Your task to perform on an android device: change notification settings in the gmail app Image 0: 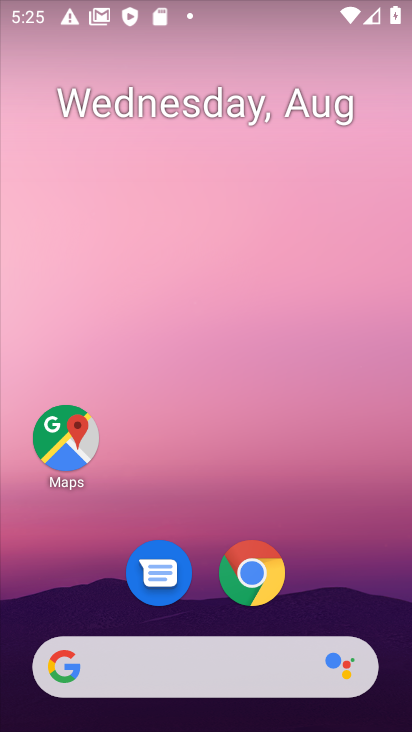
Step 0: drag from (309, 432) to (331, 1)
Your task to perform on an android device: change notification settings in the gmail app Image 1: 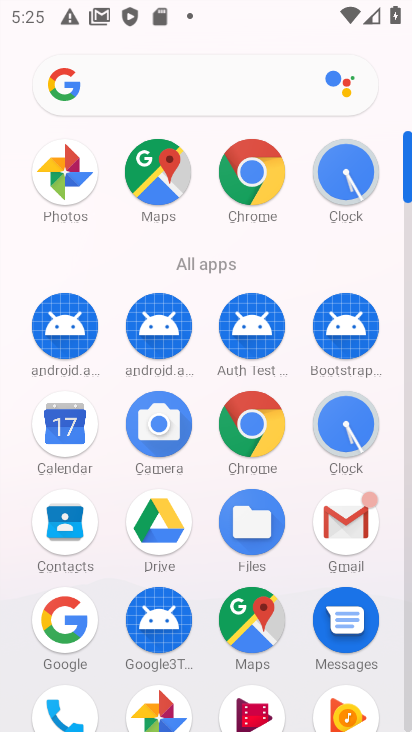
Step 1: click (365, 506)
Your task to perform on an android device: change notification settings in the gmail app Image 2: 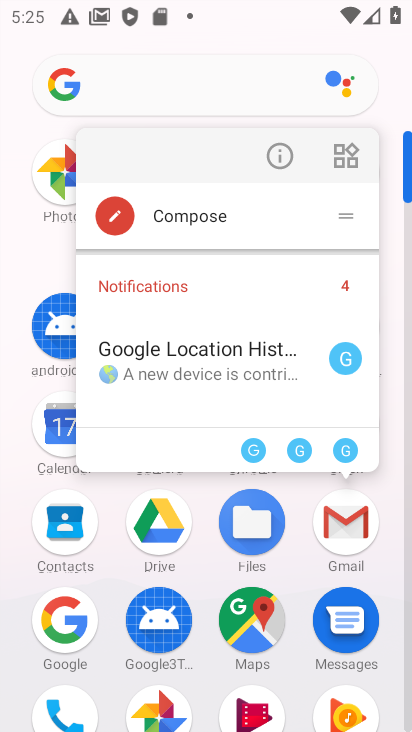
Step 2: click (355, 507)
Your task to perform on an android device: change notification settings in the gmail app Image 3: 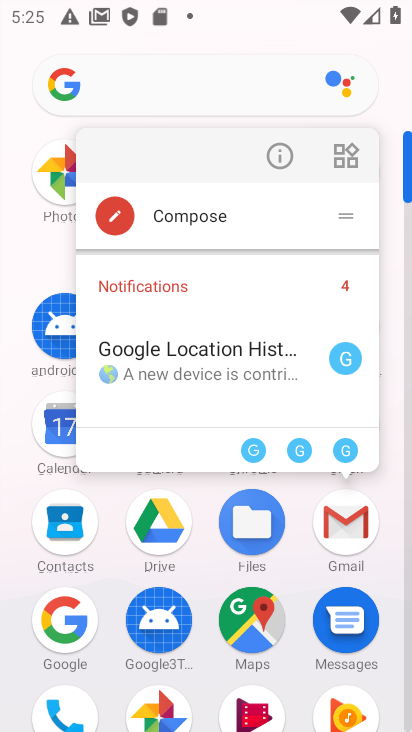
Step 3: click (356, 524)
Your task to perform on an android device: change notification settings in the gmail app Image 4: 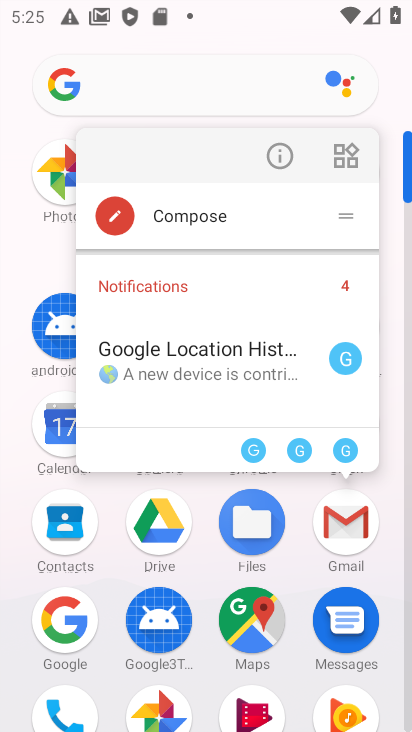
Step 4: click (355, 524)
Your task to perform on an android device: change notification settings in the gmail app Image 5: 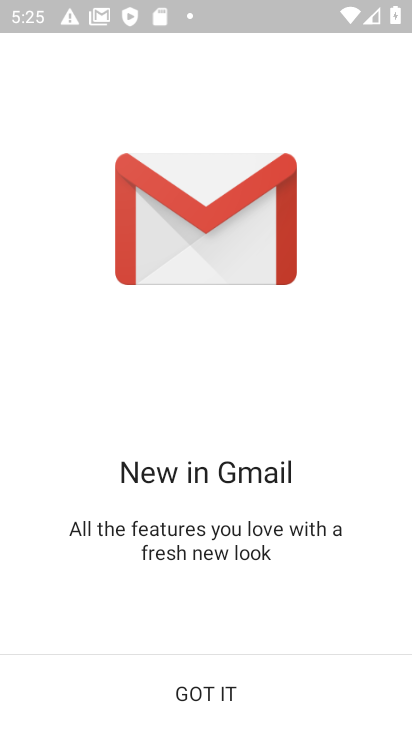
Step 5: click (178, 710)
Your task to perform on an android device: change notification settings in the gmail app Image 6: 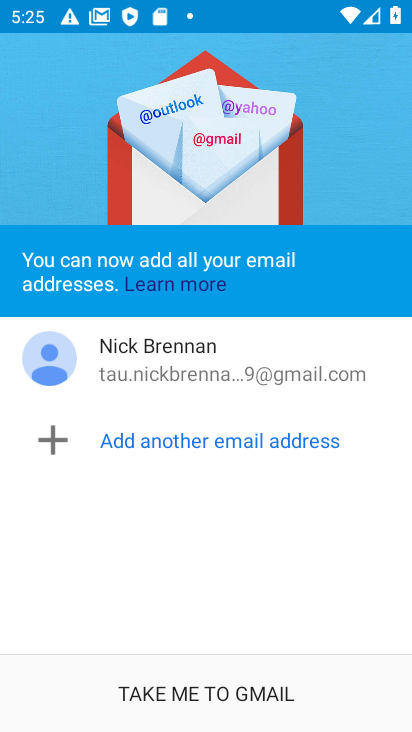
Step 6: click (180, 700)
Your task to perform on an android device: change notification settings in the gmail app Image 7: 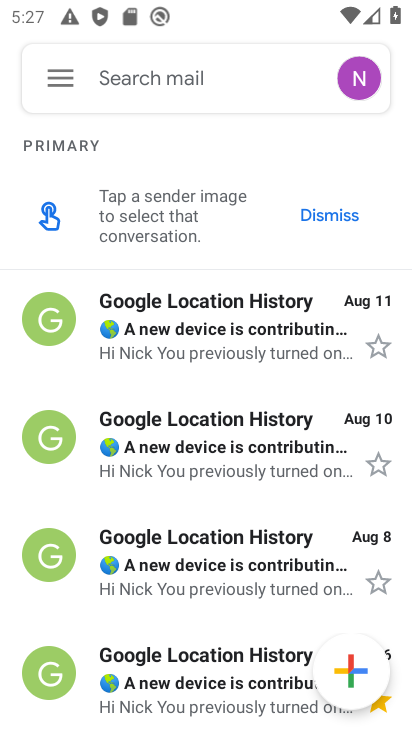
Step 7: click (35, 96)
Your task to perform on an android device: change notification settings in the gmail app Image 8: 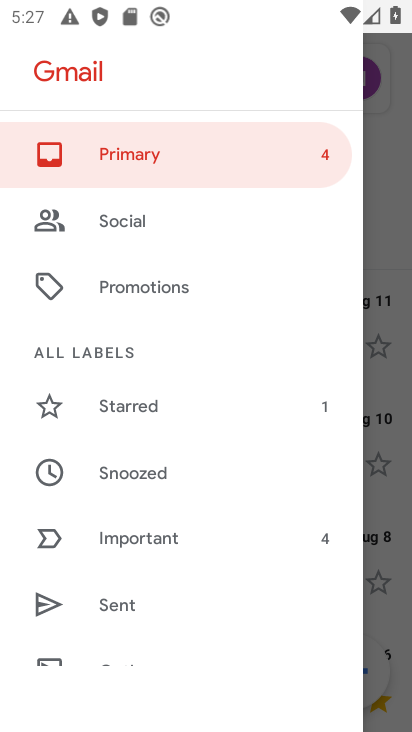
Step 8: drag from (158, 637) to (205, 206)
Your task to perform on an android device: change notification settings in the gmail app Image 9: 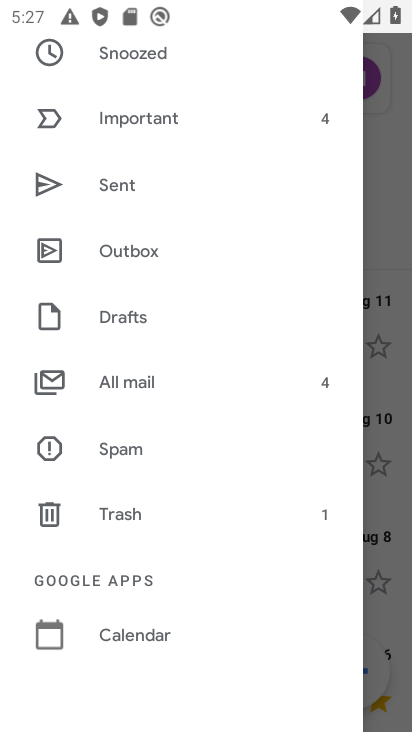
Step 9: drag from (129, 603) to (141, 99)
Your task to perform on an android device: change notification settings in the gmail app Image 10: 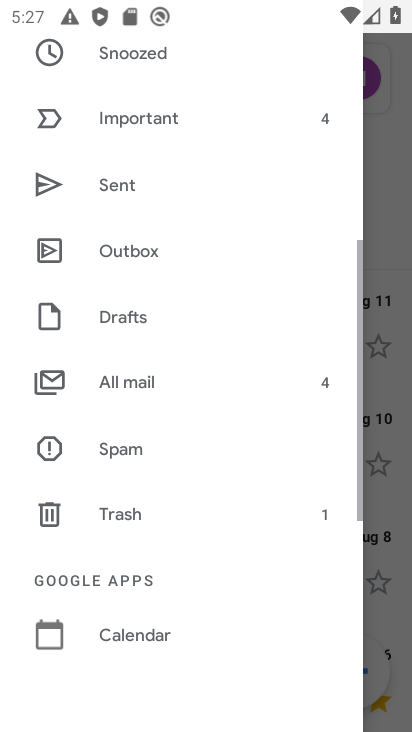
Step 10: drag from (152, 613) to (213, 158)
Your task to perform on an android device: change notification settings in the gmail app Image 11: 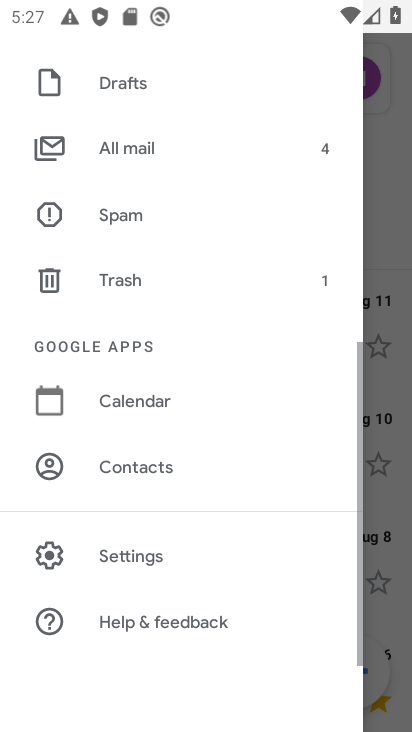
Step 11: click (133, 555)
Your task to perform on an android device: change notification settings in the gmail app Image 12: 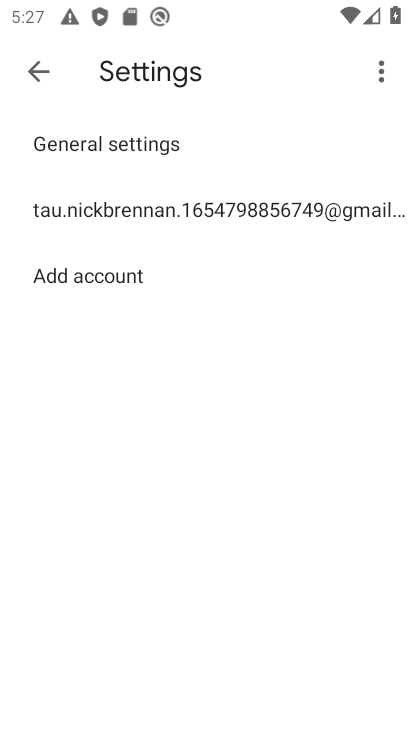
Step 12: click (108, 209)
Your task to perform on an android device: change notification settings in the gmail app Image 13: 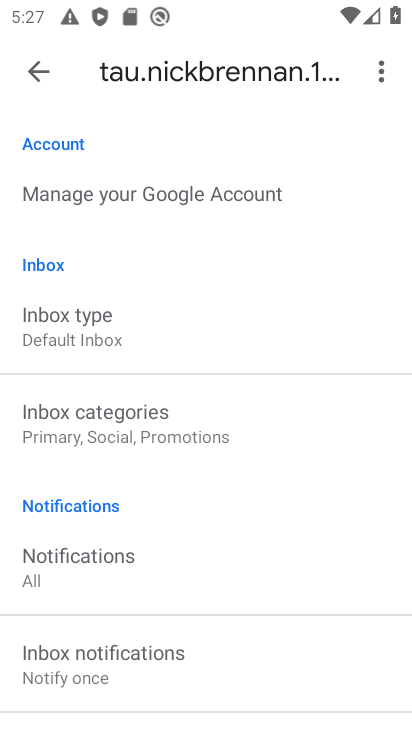
Step 13: click (74, 561)
Your task to perform on an android device: change notification settings in the gmail app Image 14: 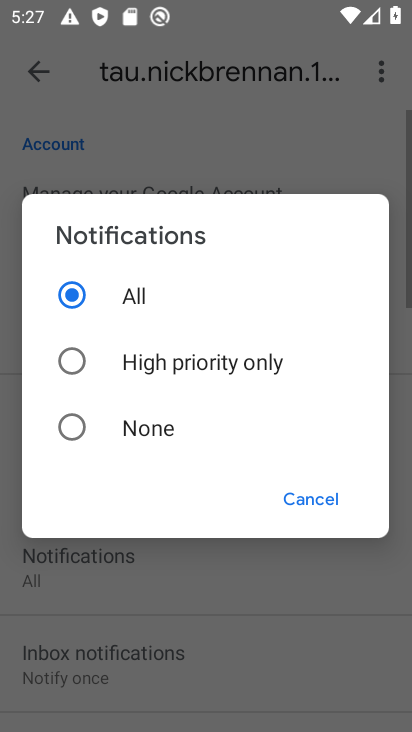
Step 14: click (164, 351)
Your task to perform on an android device: change notification settings in the gmail app Image 15: 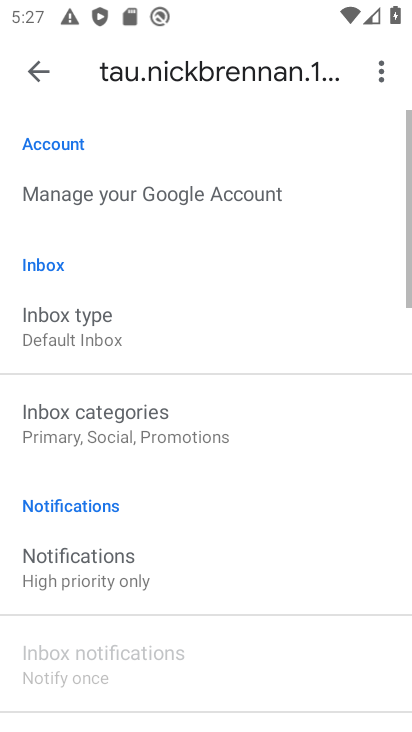
Step 15: task complete